Your task to perform on an android device: set the timer Image 0: 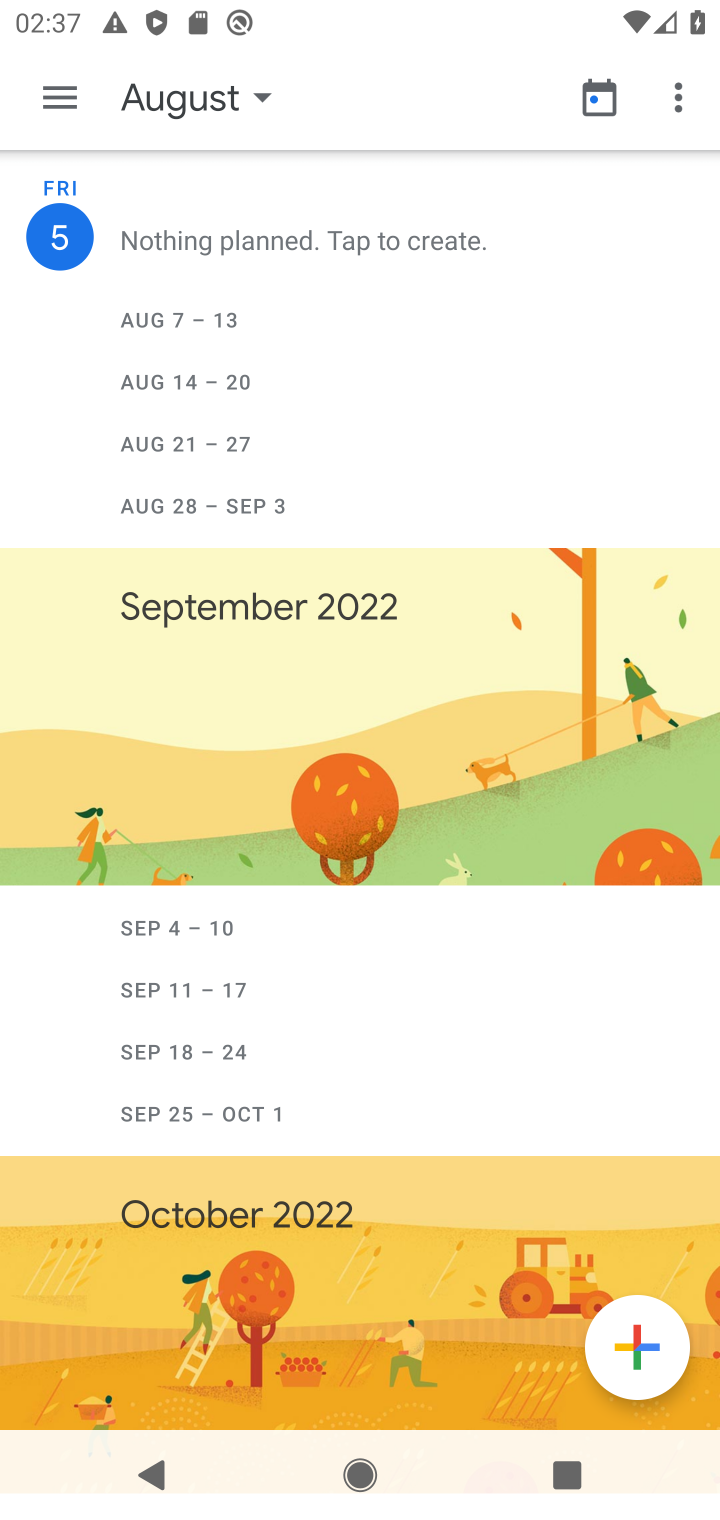
Step 0: press home button
Your task to perform on an android device: set the timer Image 1: 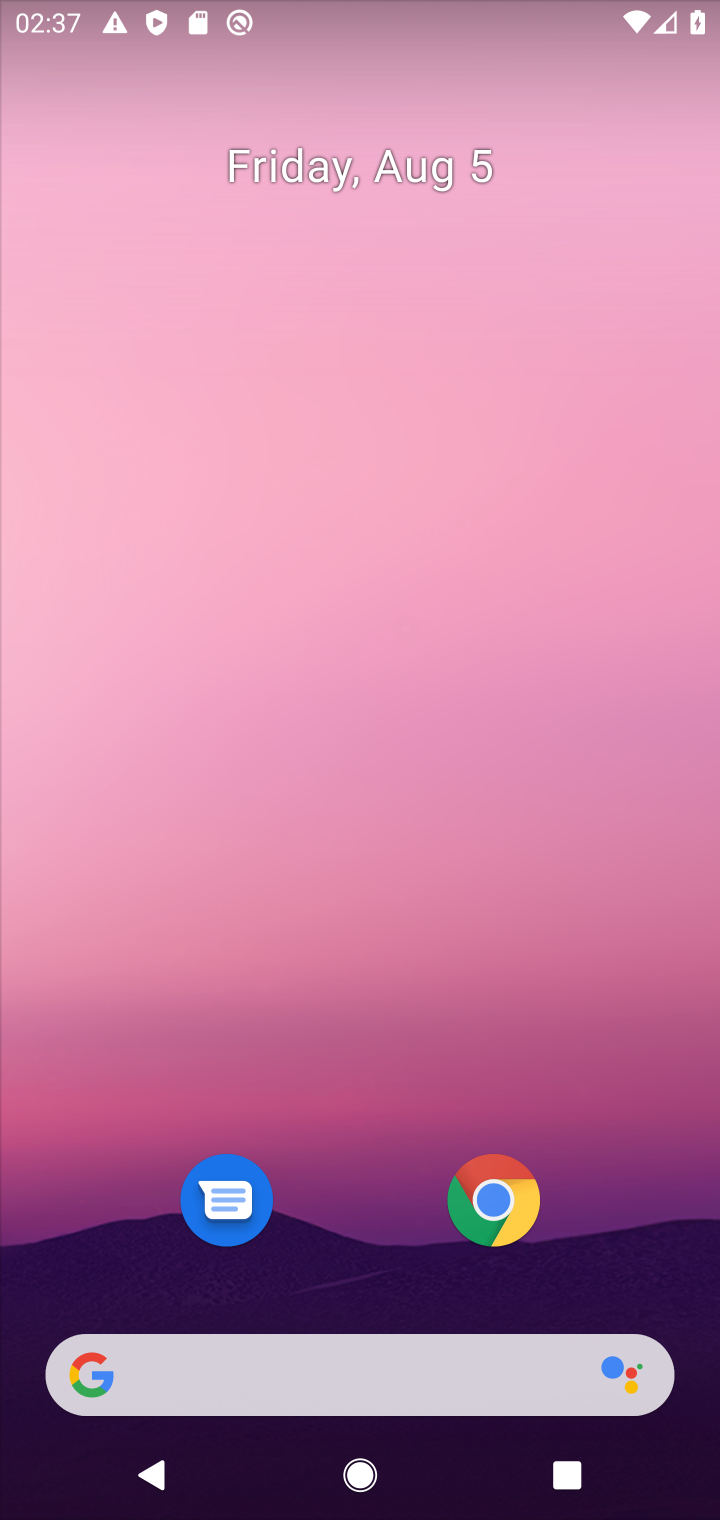
Step 1: drag from (324, 968) to (227, 262)
Your task to perform on an android device: set the timer Image 2: 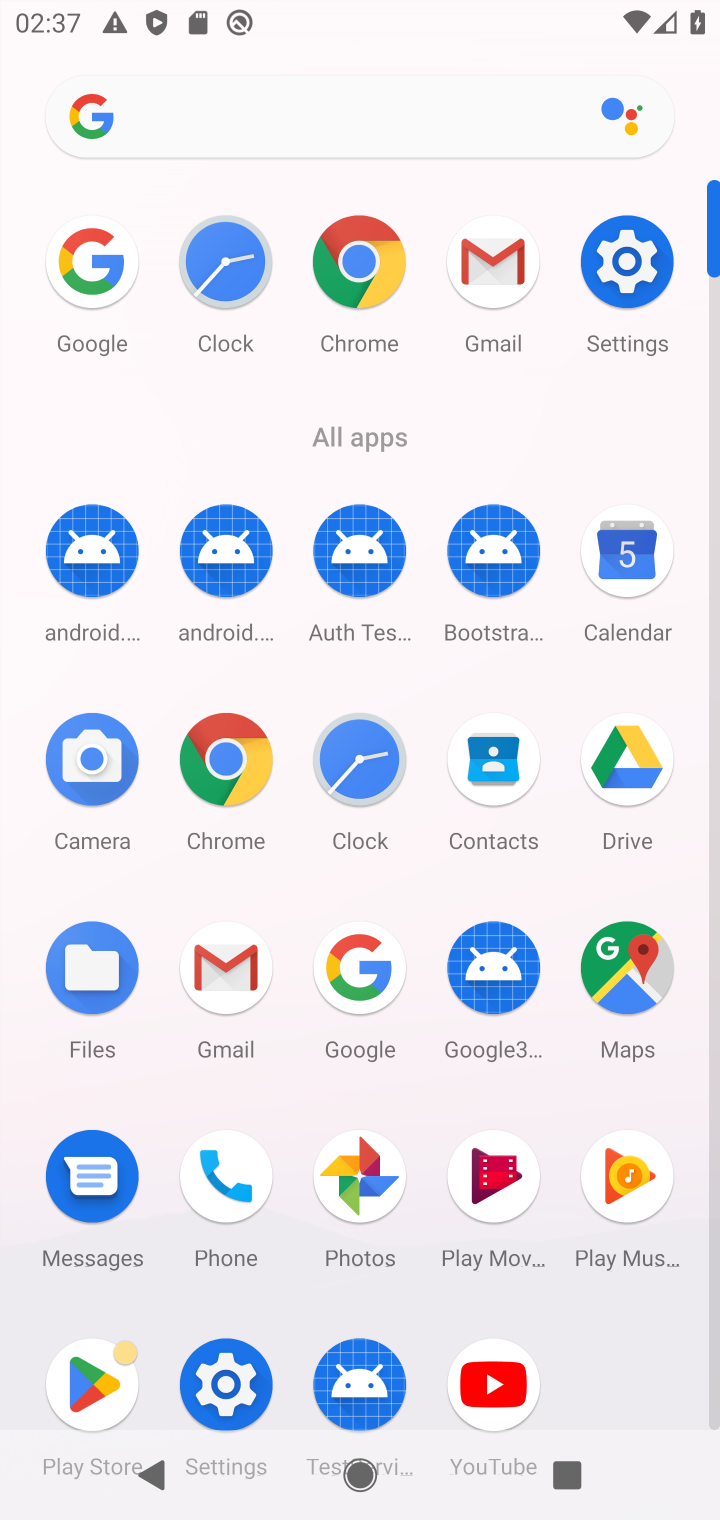
Step 2: click (225, 321)
Your task to perform on an android device: set the timer Image 3: 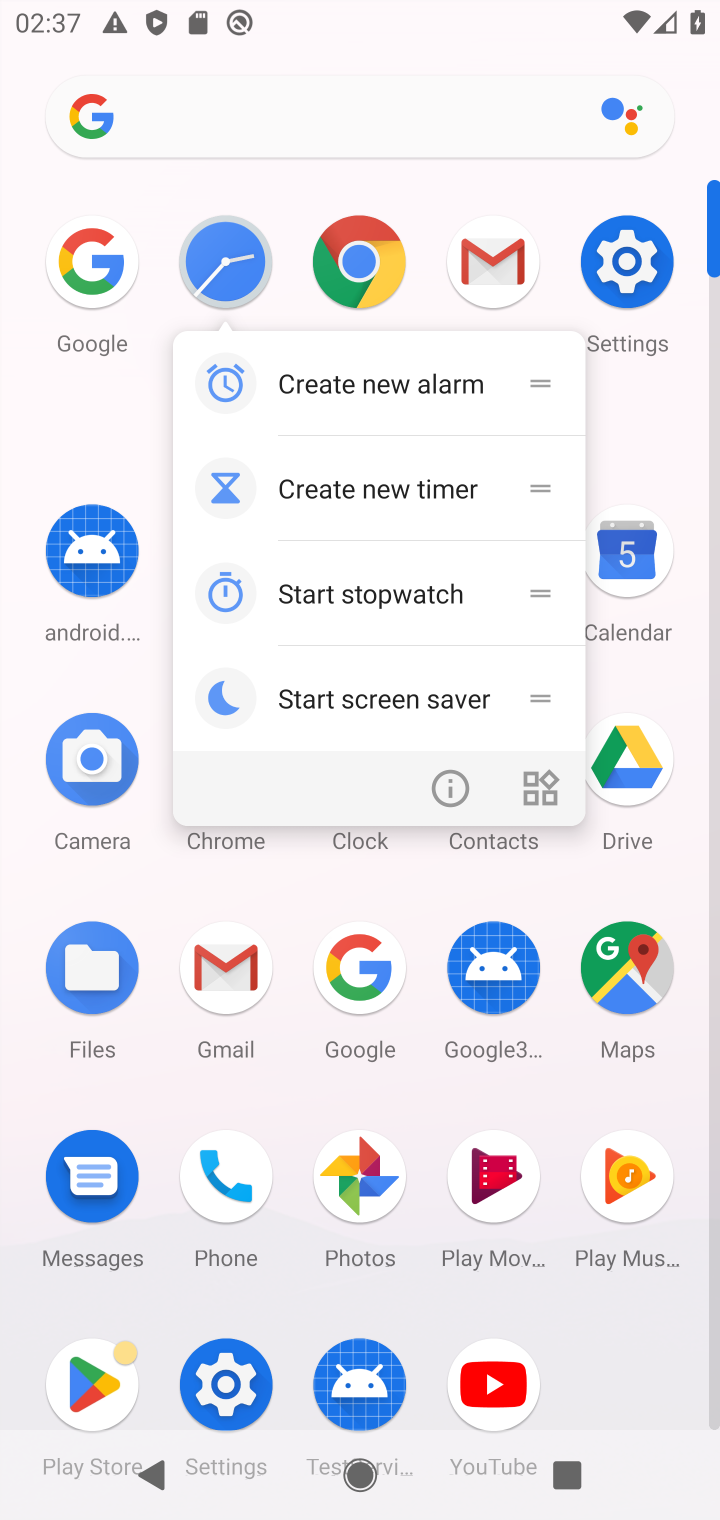
Step 3: click (216, 267)
Your task to perform on an android device: set the timer Image 4: 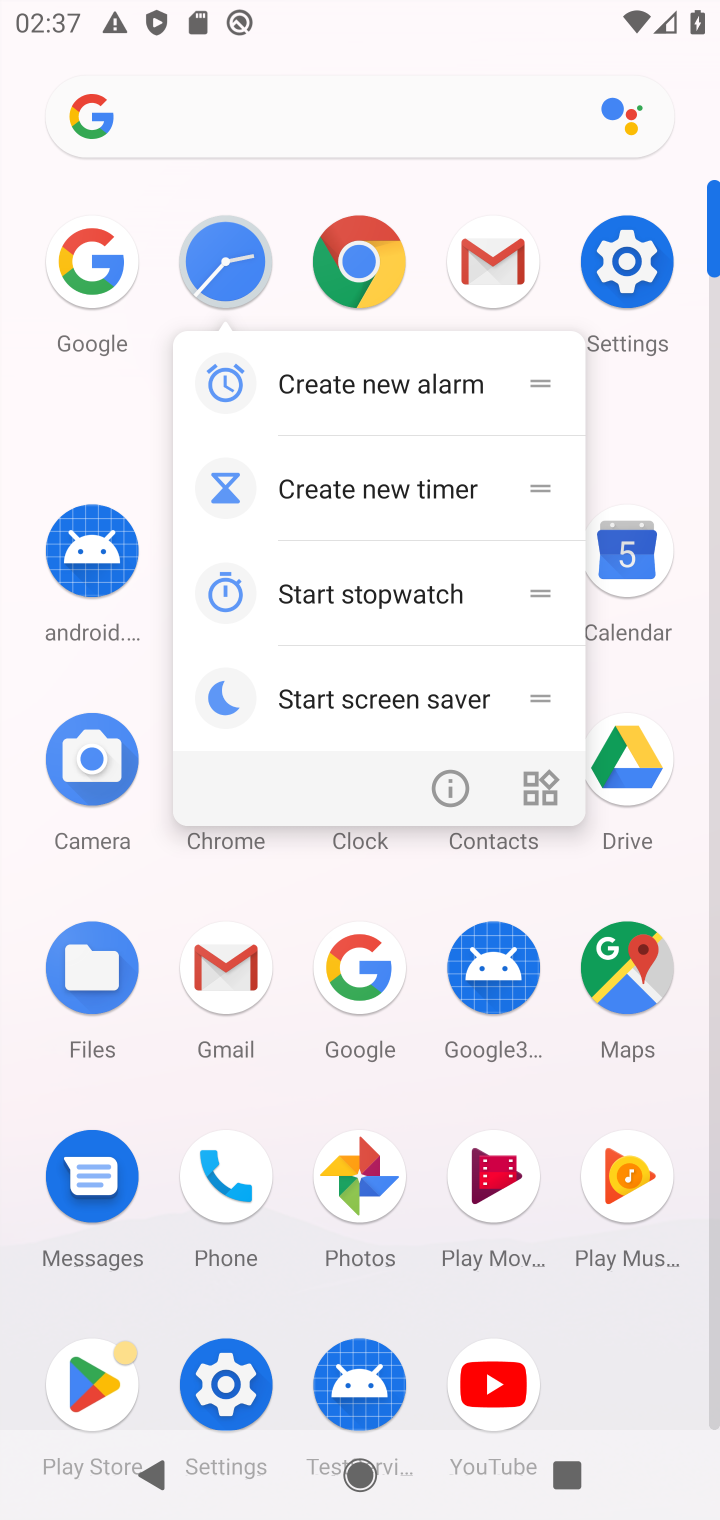
Step 4: click (216, 267)
Your task to perform on an android device: set the timer Image 5: 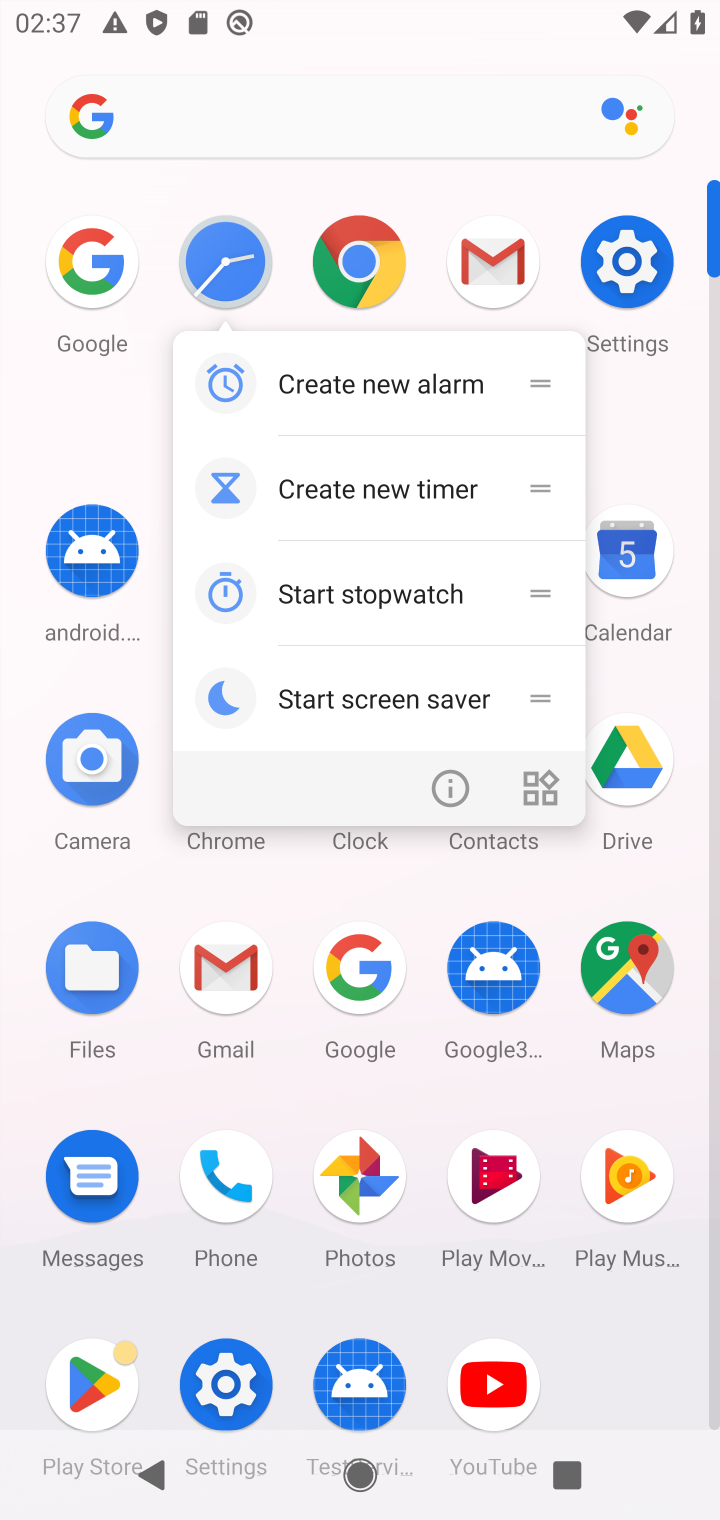
Step 5: click (216, 267)
Your task to perform on an android device: set the timer Image 6: 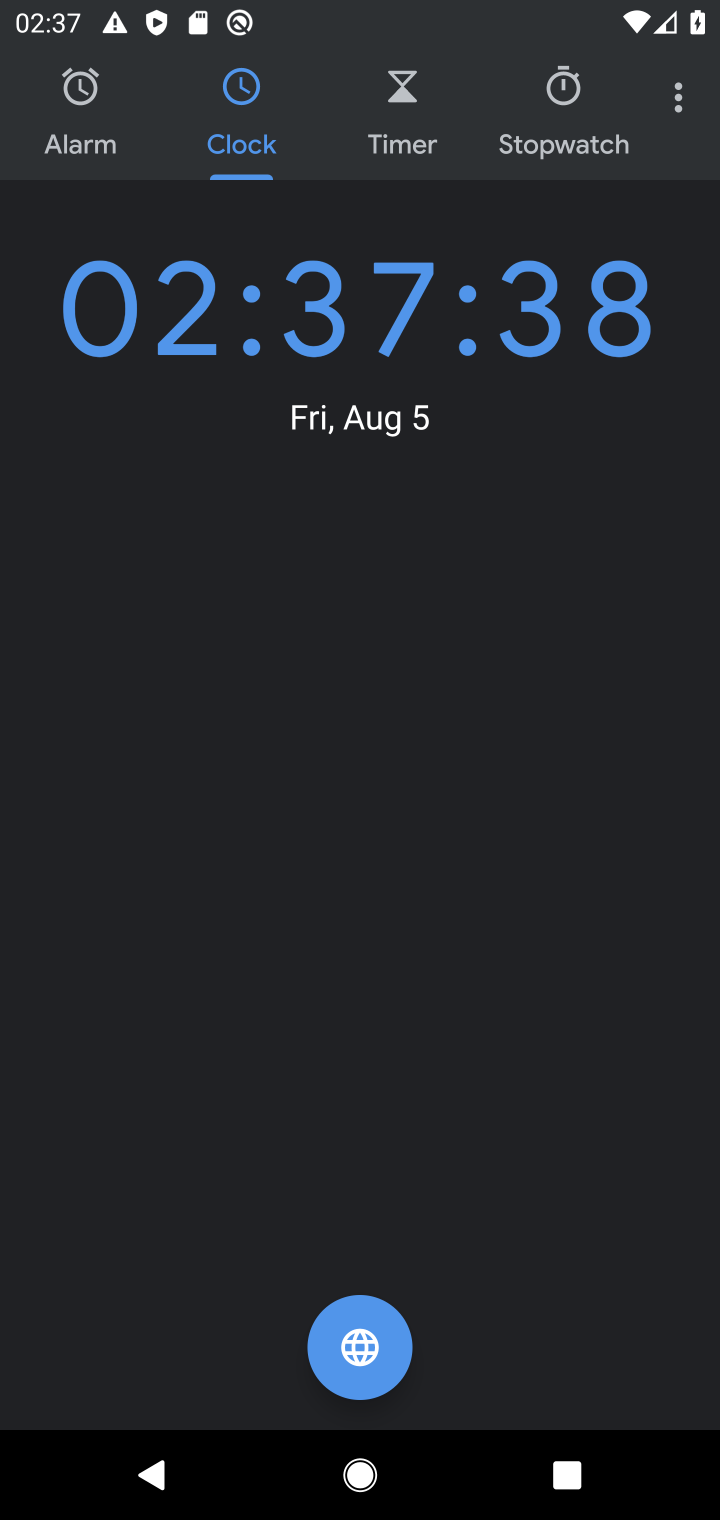
Step 6: click (216, 267)
Your task to perform on an android device: set the timer Image 7: 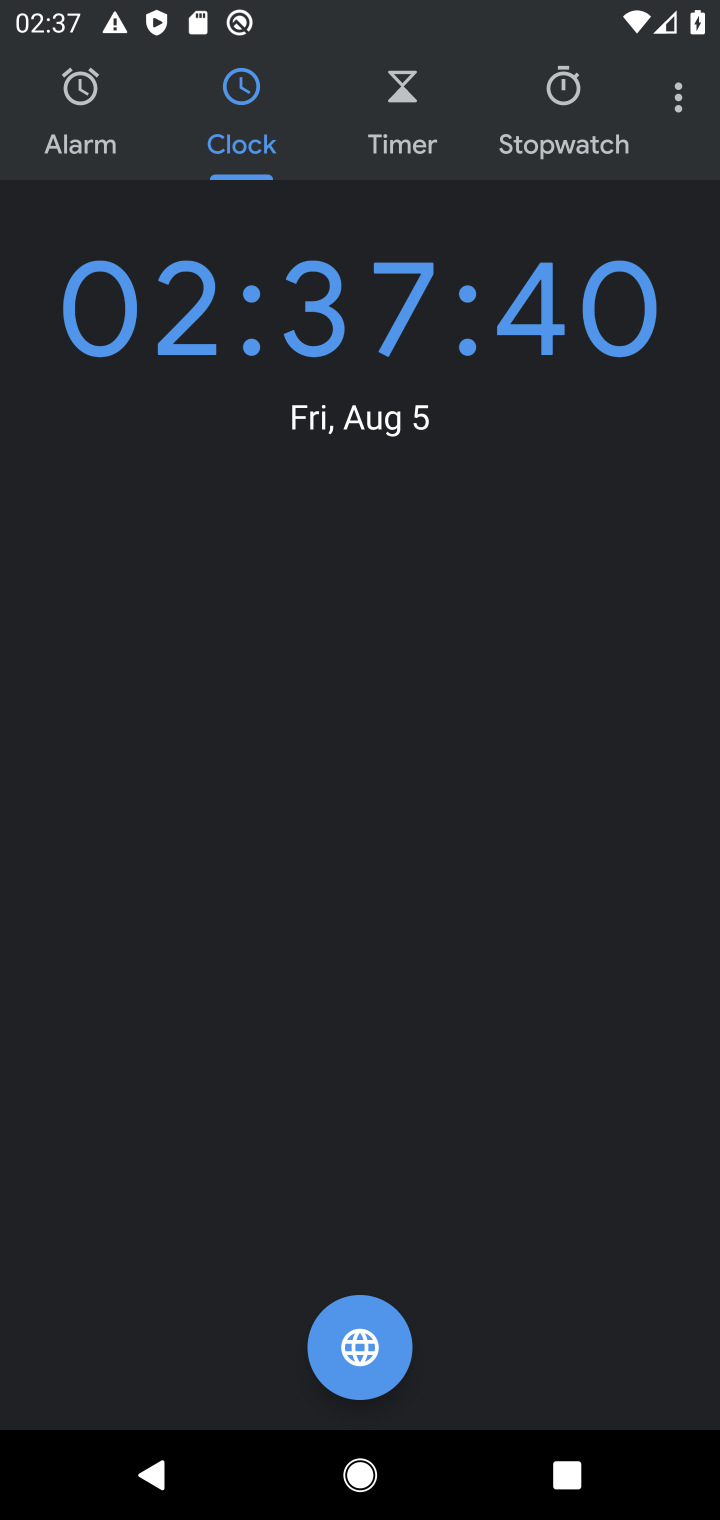
Step 7: click (431, 113)
Your task to perform on an android device: set the timer Image 8: 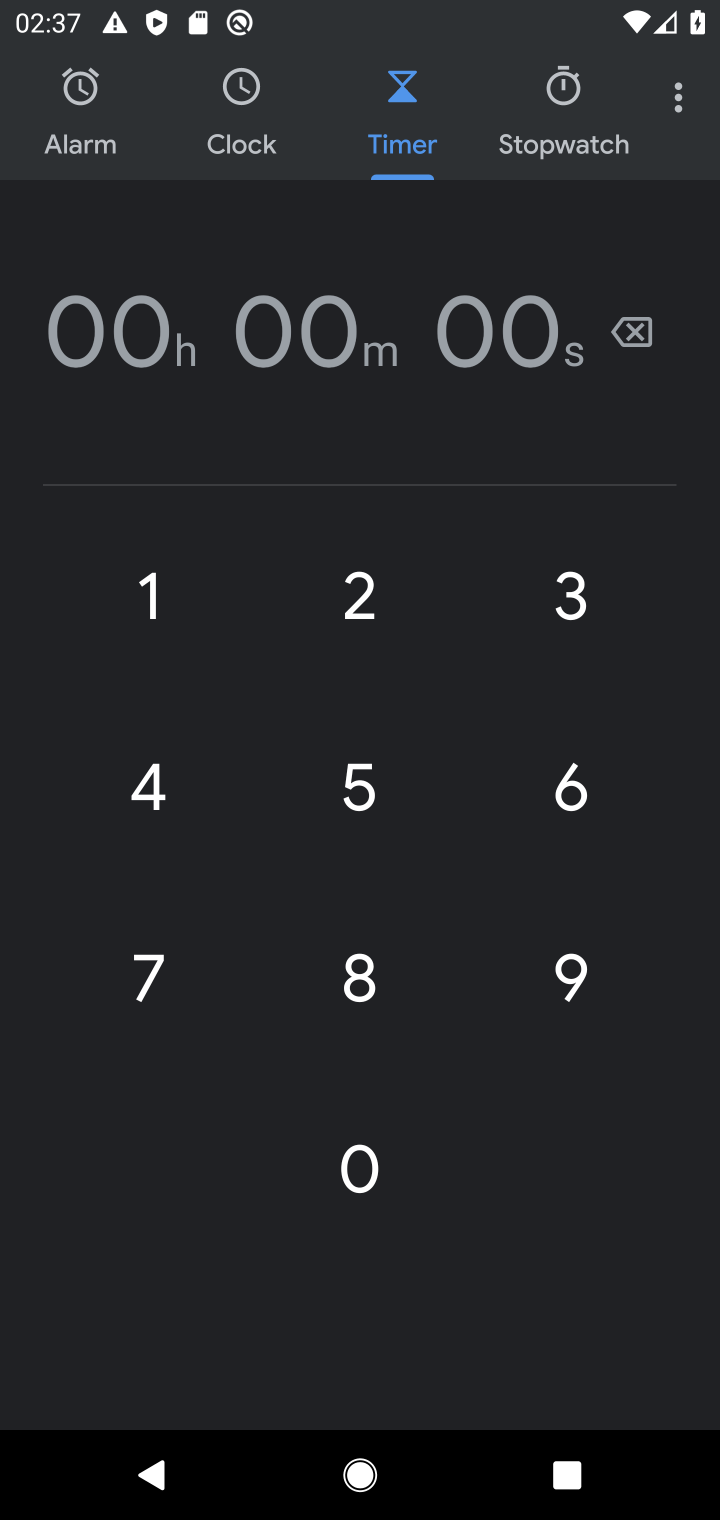
Step 8: click (464, 327)
Your task to perform on an android device: set the timer Image 9: 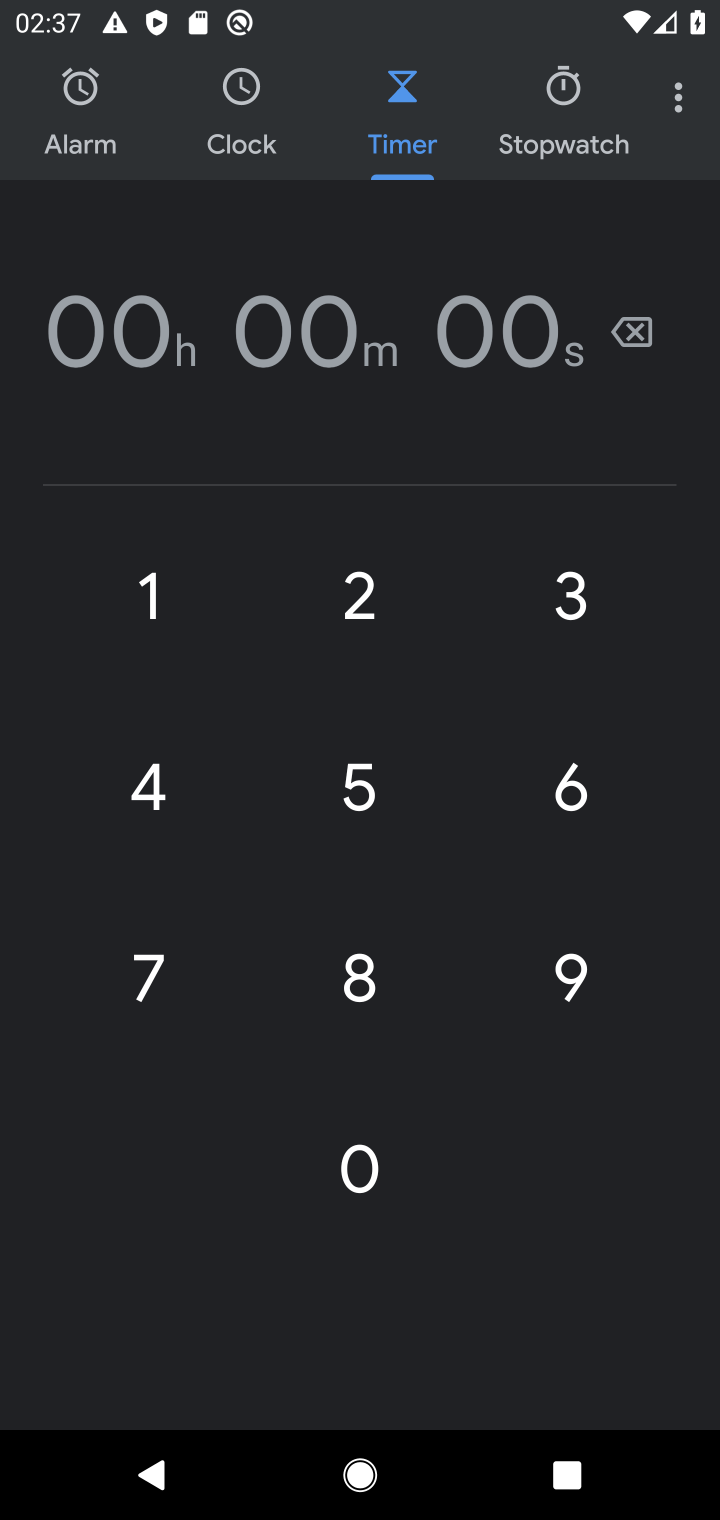
Step 9: type "11"
Your task to perform on an android device: set the timer Image 10: 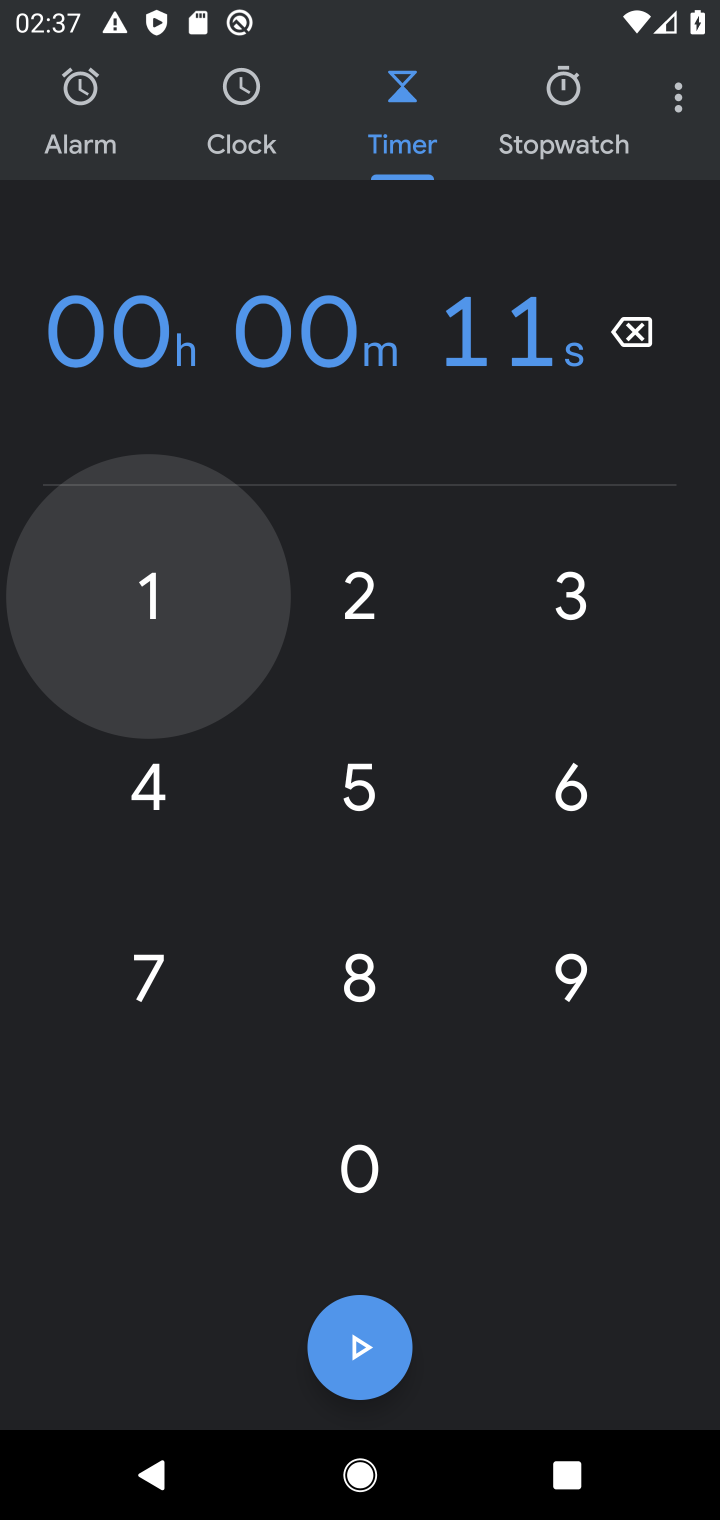
Step 10: task complete